Your task to perform on an android device: Open Chrome and go to settings Image 0: 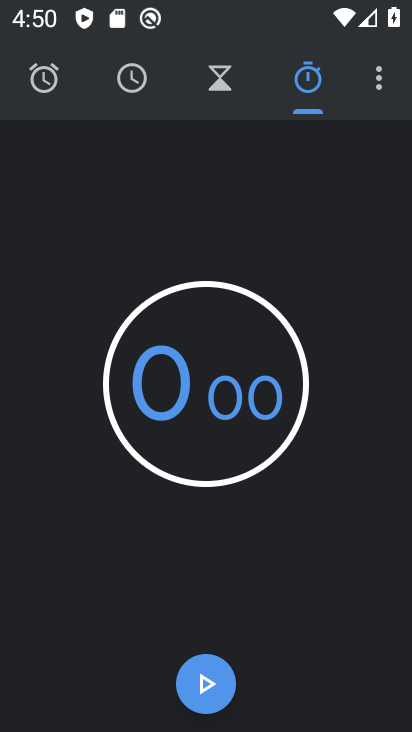
Step 0: press back button
Your task to perform on an android device: Open Chrome and go to settings Image 1: 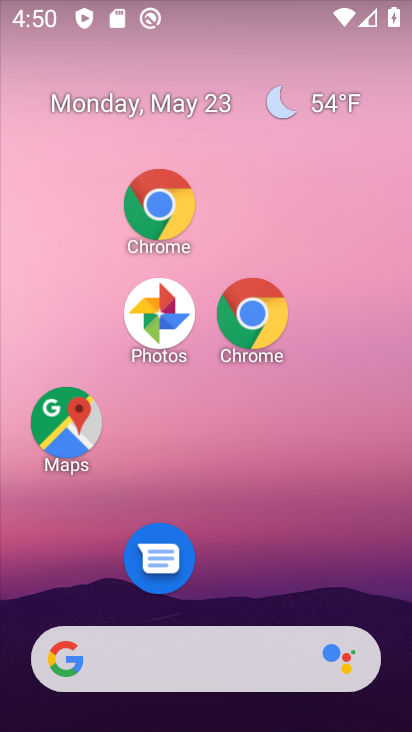
Step 1: drag from (307, 637) to (224, 147)
Your task to perform on an android device: Open Chrome and go to settings Image 2: 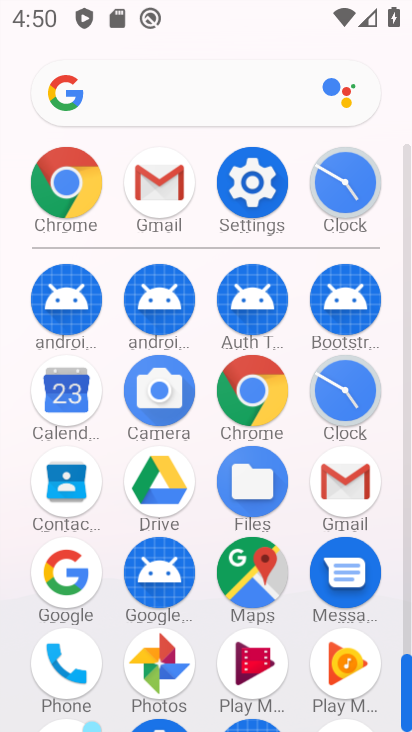
Step 2: click (62, 188)
Your task to perform on an android device: Open Chrome and go to settings Image 3: 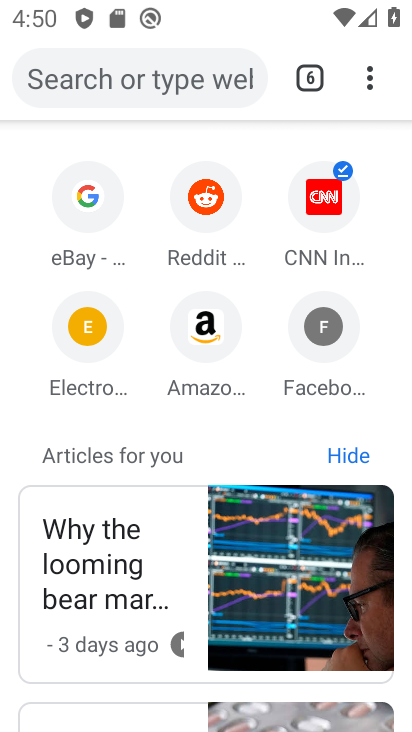
Step 3: click (369, 83)
Your task to perform on an android device: Open Chrome and go to settings Image 4: 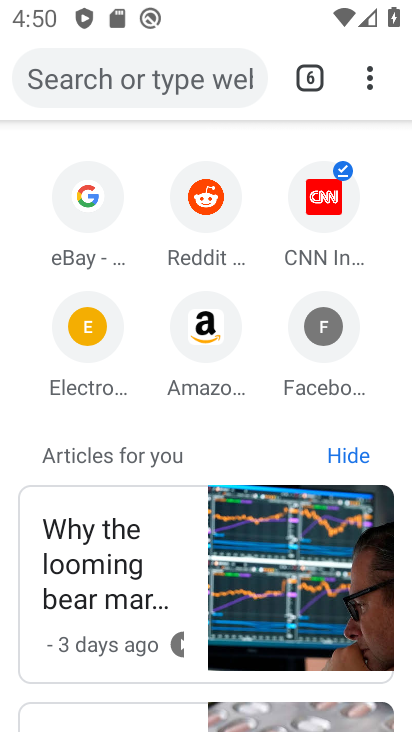
Step 4: click (369, 83)
Your task to perform on an android device: Open Chrome and go to settings Image 5: 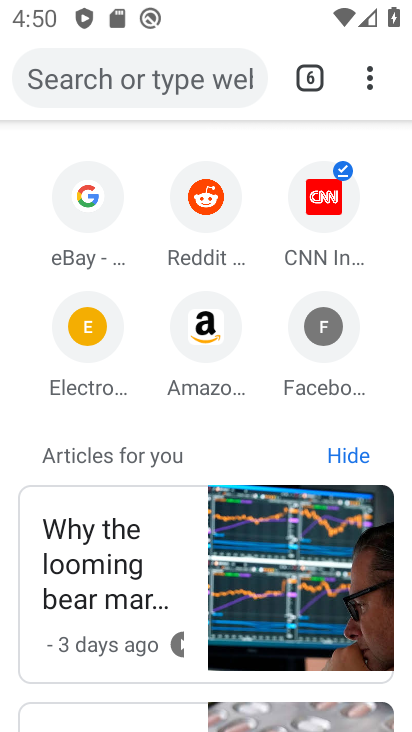
Step 5: drag from (370, 81) to (79, 641)
Your task to perform on an android device: Open Chrome and go to settings Image 6: 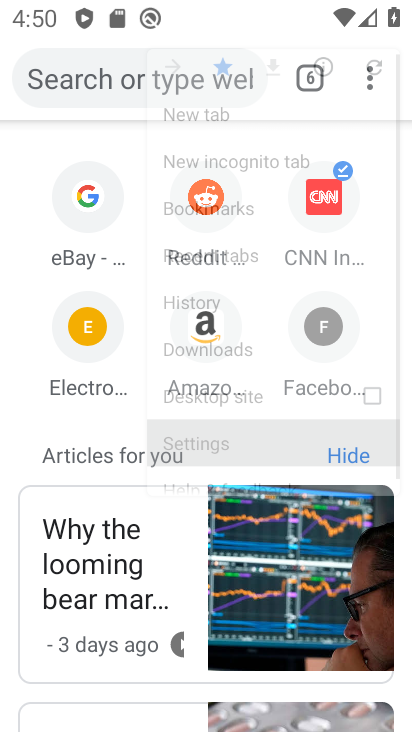
Step 6: click (106, 660)
Your task to perform on an android device: Open Chrome and go to settings Image 7: 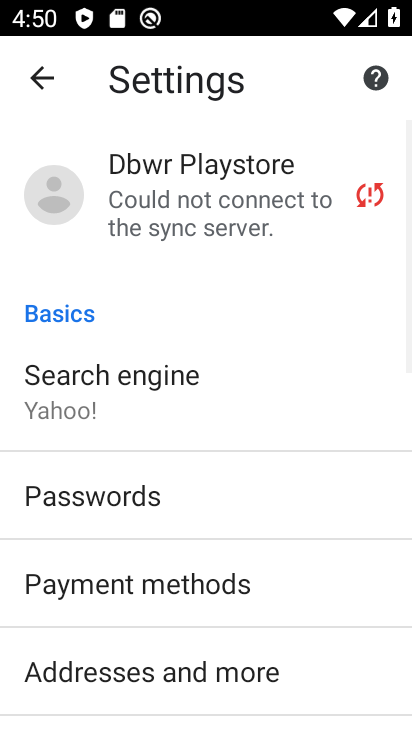
Step 7: task complete